Your task to perform on an android device: toggle data saver in the chrome app Image 0: 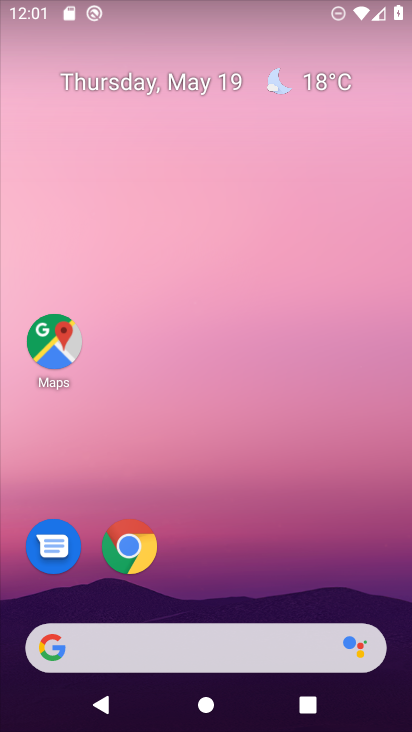
Step 0: click (135, 547)
Your task to perform on an android device: toggle data saver in the chrome app Image 1: 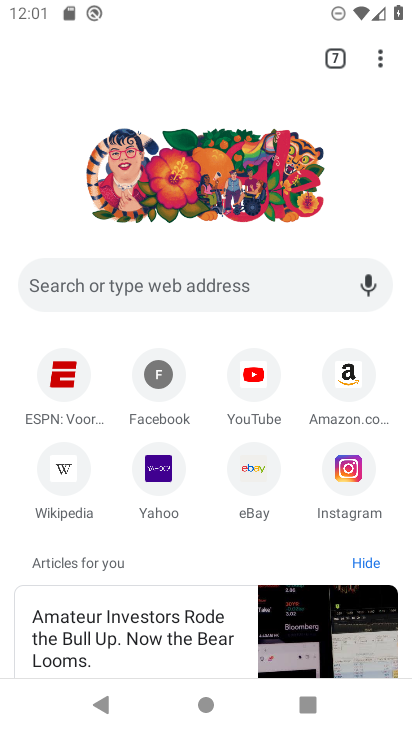
Step 1: click (380, 64)
Your task to perform on an android device: toggle data saver in the chrome app Image 2: 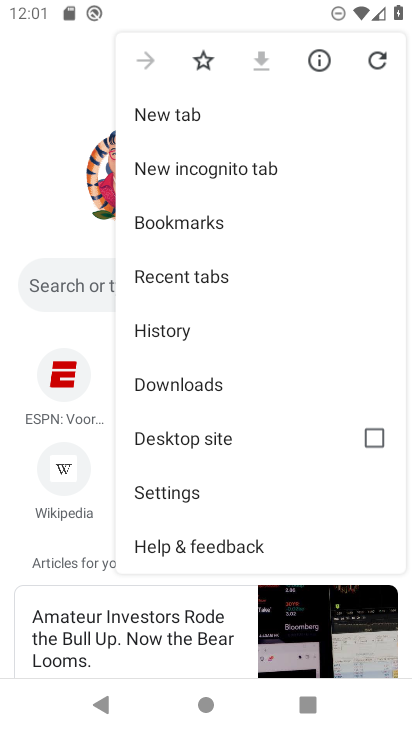
Step 2: click (191, 486)
Your task to perform on an android device: toggle data saver in the chrome app Image 3: 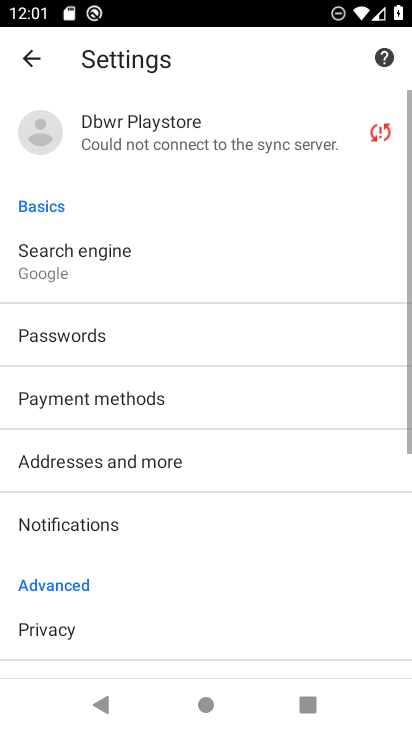
Step 3: drag from (149, 626) to (175, 308)
Your task to perform on an android device: toggle data saver in the chrome app Image 4: 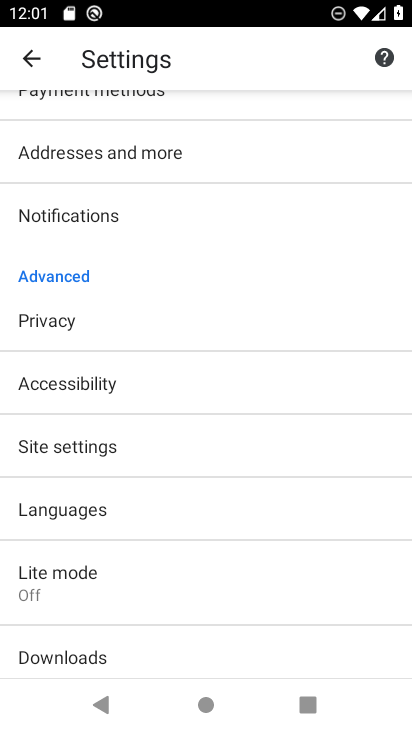
Step 4: click (83, 573)
Your task to perform on an android device: toggle data saver in the chrome app Image 5: 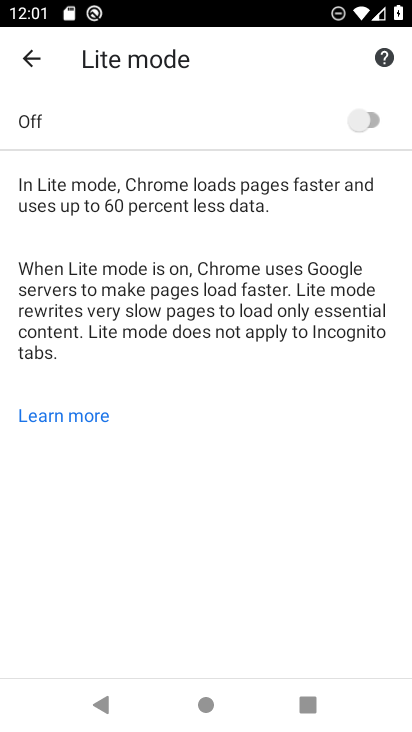
Step 5: click (378, 113)
Your task to perform on an android device: toggle data saver in the chrome app Image 6: 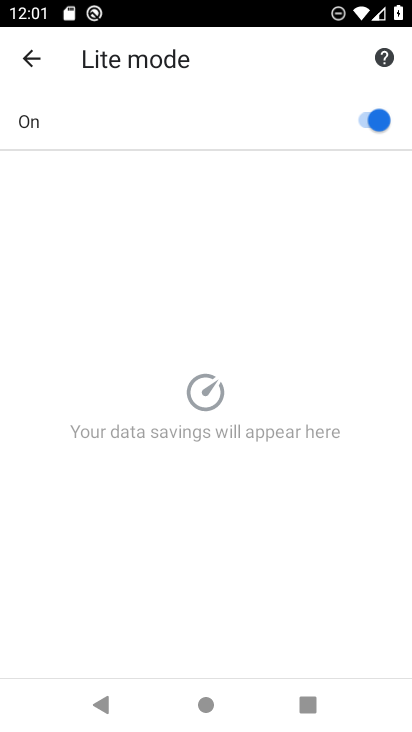
Step 6: task complete